Your task to perform on an android device: turn on sleep mode Image 0: 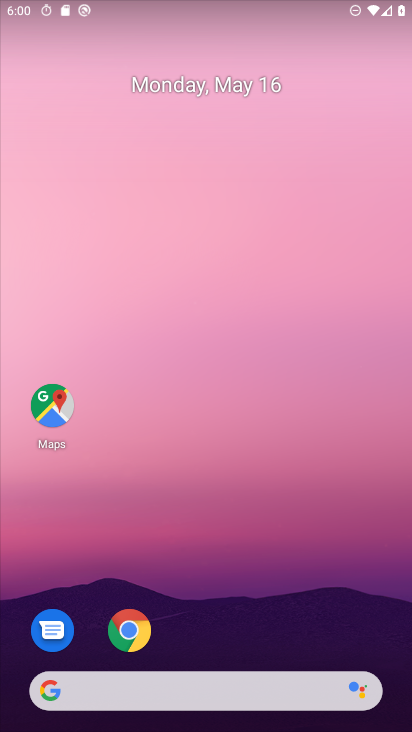
Step 0: press home button
Your task to perform on an android device: turn on sleep mode Image 1: 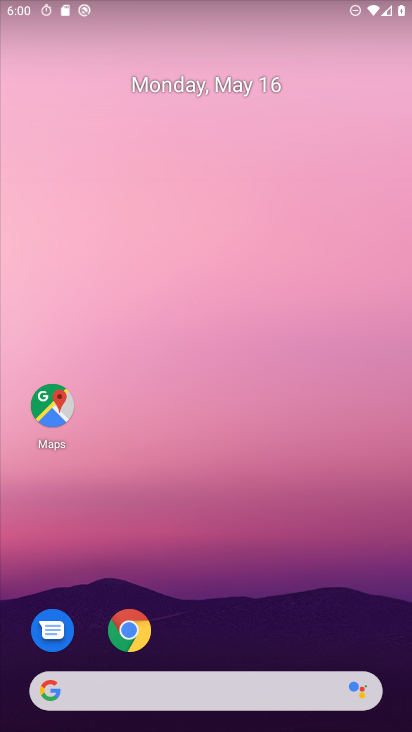
Step 1: drag from (314, 619) to (306, 29)
Your task to perform on an android device: turn on sleep mode Image 2: 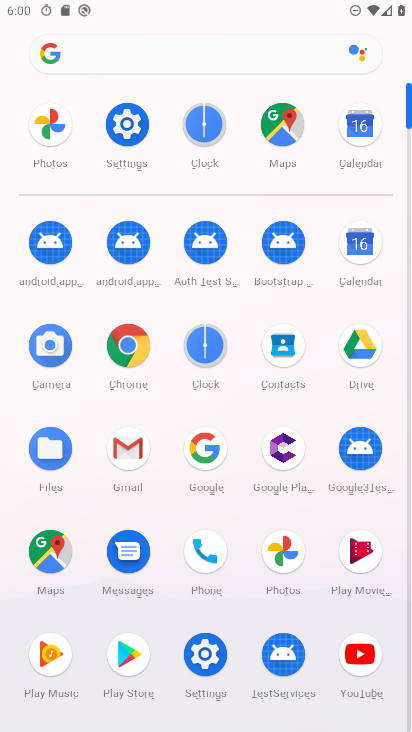
Step 2: click (204, 684)
Your task to perform on an android device: turn on sleep mode Image 3: 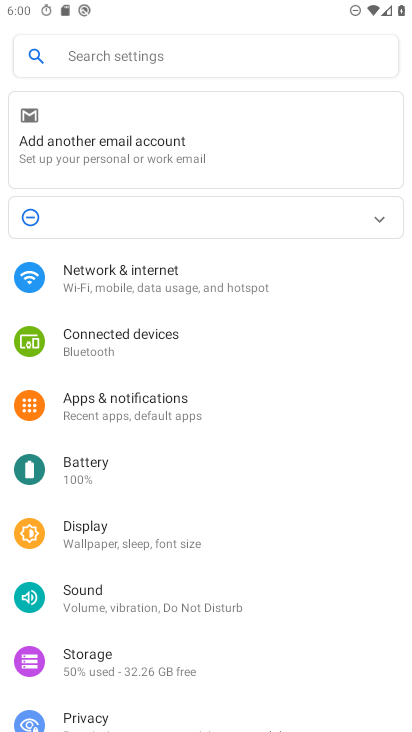
Step 3: click (86, 532)
Your task to perform on an android device: turn on sleep mode Image 4: 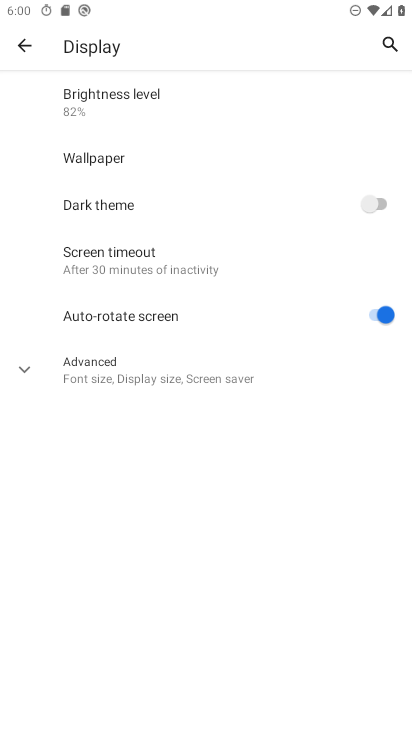
Step 4: click (128, 369)
Your task to perform on an android device: turn on sleep mode Image 5: 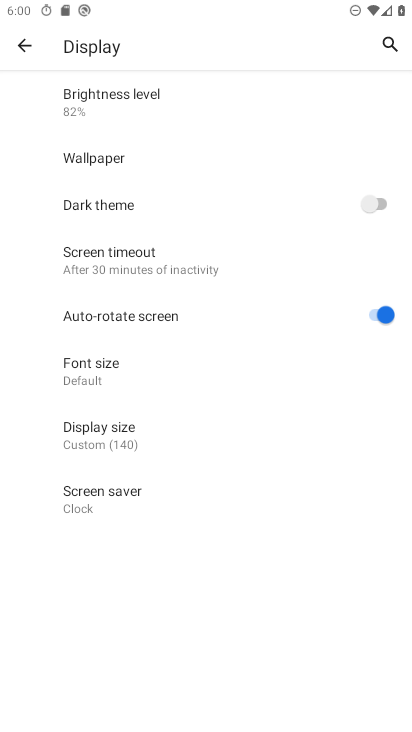
Step 5: task complete